Your task to perform on an android device: find which apps use the phone's location Image 0: 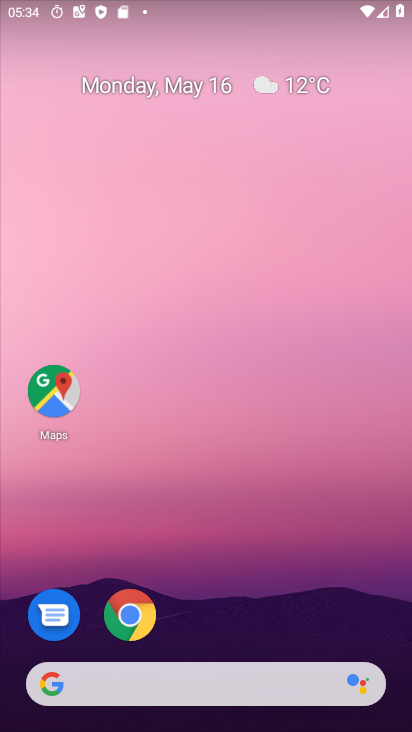
Step 0: drag from (251, 42) to (234, 5)
Your task to perform on an android device: find which apps use the phone's location Image 1: 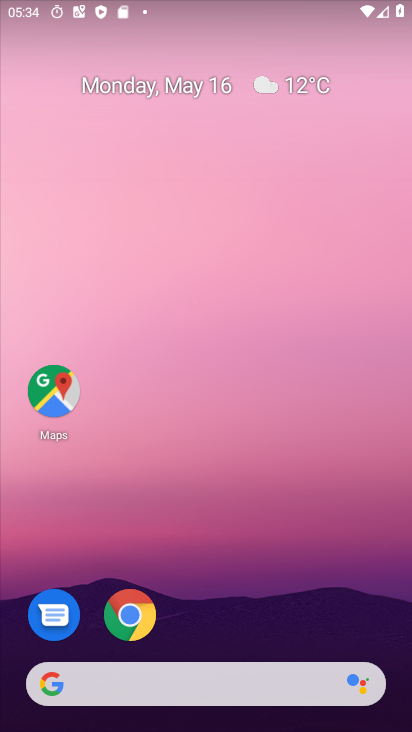
Step 1: task complete